Your task to perform on an android device: clear all cookies in the chrome app Image 0: 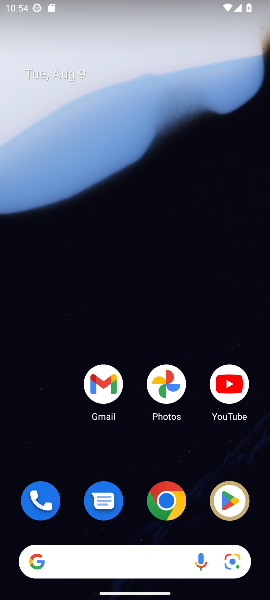
Step 0: click (167, 501)
Your task to perform on an android device: clear all cookies in the chrome app Image 1: 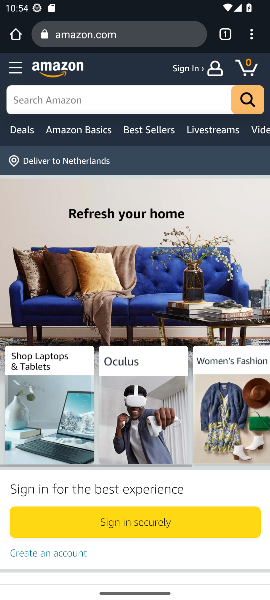
Step 1: click (253, 35)
Your task to perform on an android device: clear all cookies in the chrome app Image 2: 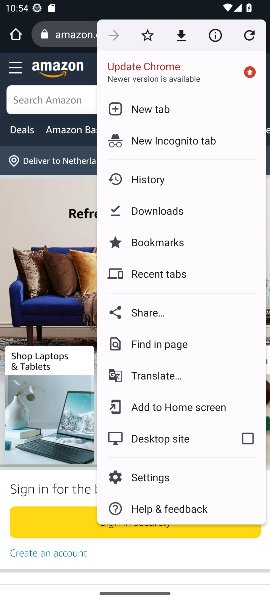
Step 2: click (155, 177)
Your task to perform on an android device: clear all cookies in the chrome app Image 3: 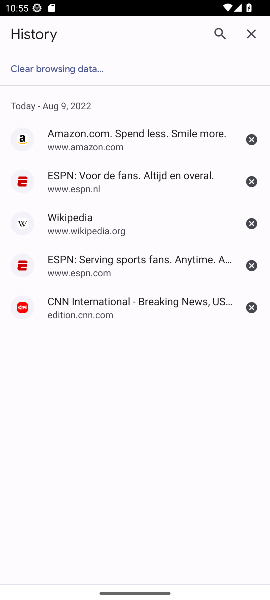
Step 3: click (73, 67)
Your task to perform on an android device: clear all cookies in the chrome app Image 4: 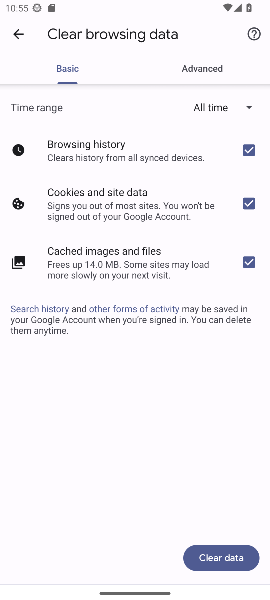
Step 4: click (249, 263)
Your task to perform on an android device: clear all cookies in the chrome app Image 5: 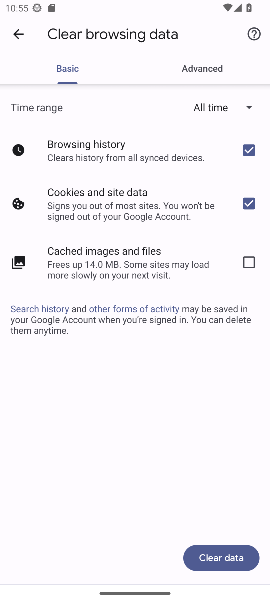
Step 5: click (254, 151)
Your task to perform on an android device: clear all cookies in the chrome app Image 6: 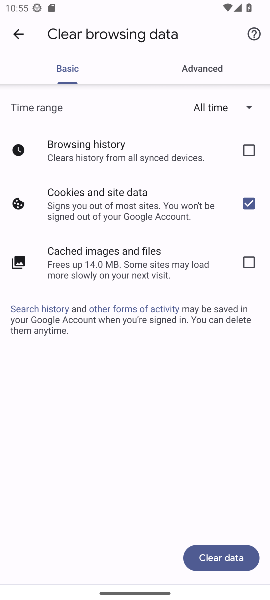
Step 6: click (213, 550)
Your task to perform on an android device: clear all cookies in the chrome app Image 7: 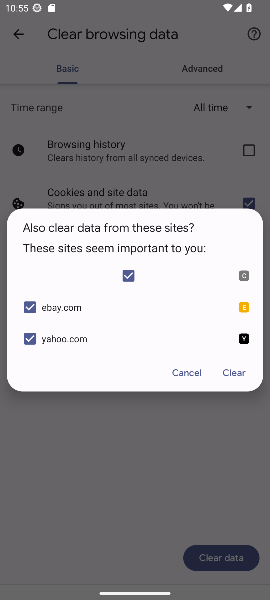
Step 7: click (235, 368)
Your task to perform on an android device: clear all cookies in the chrome app Image 8: 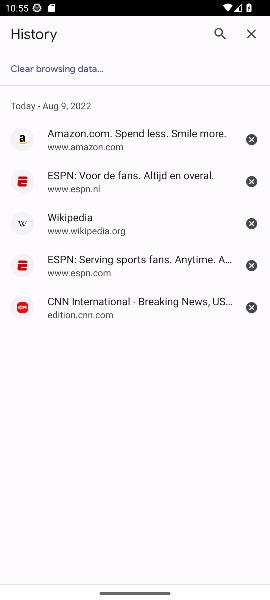
Step 8: task complete